Your task to perform on an android device: Go to settings Image 0: 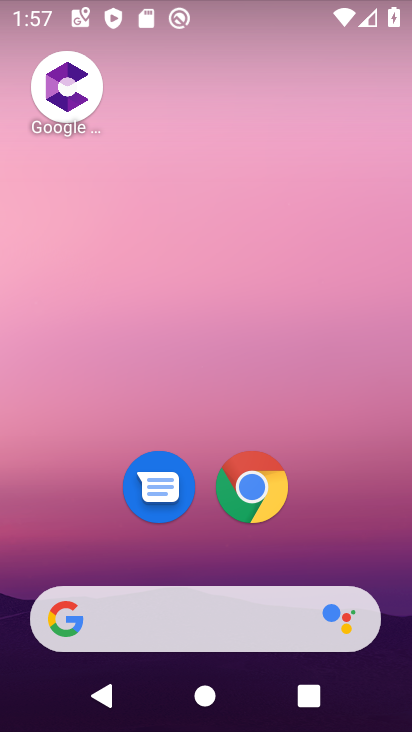
Step 0: press home button
Your task to perform on an android device: Go to settings Image 1: 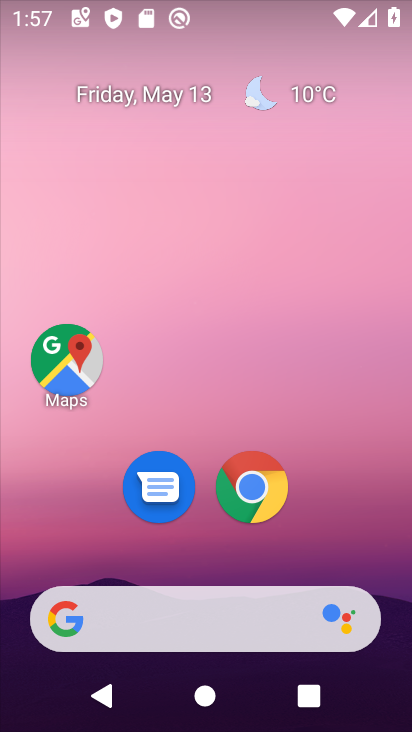
Step 1: drag from (202, 554) to (239, 191)
Your task to perform on an android device: Go to settings Image 2: 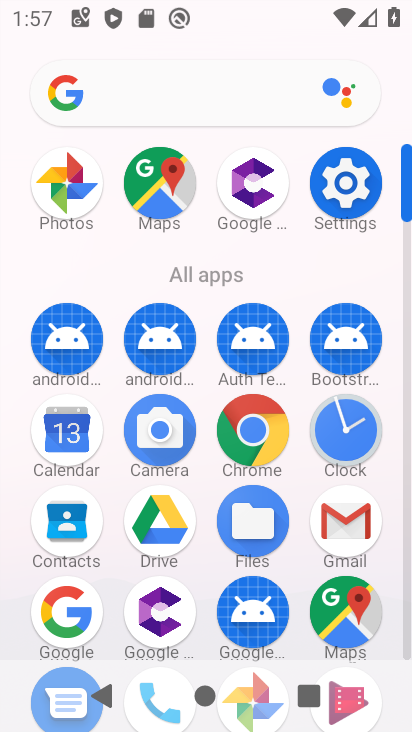
Step 2: click (342, 180)
Your task to perform on an android device: Go to settings Image 3: 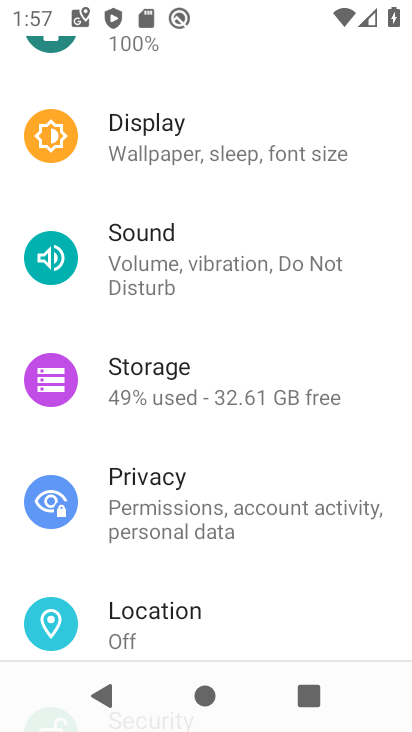
Step 3: task complete